Your task to perform on an android device: turn on airplane mode Image 0: 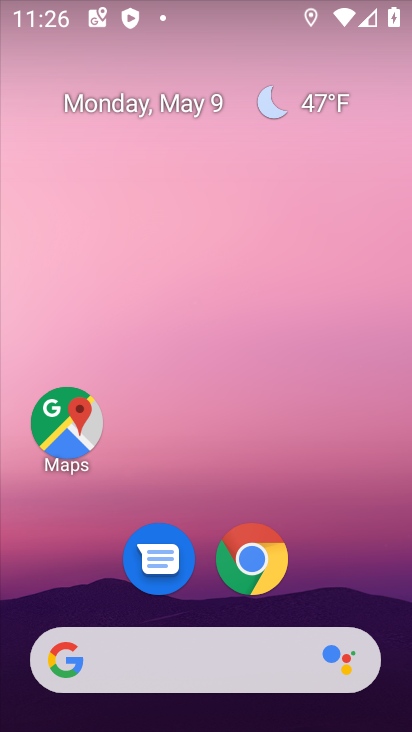
Step 0: drag from (323, 10) to (308, 502)
Your task to perform on an android device: turn on airplane mode Image 1: 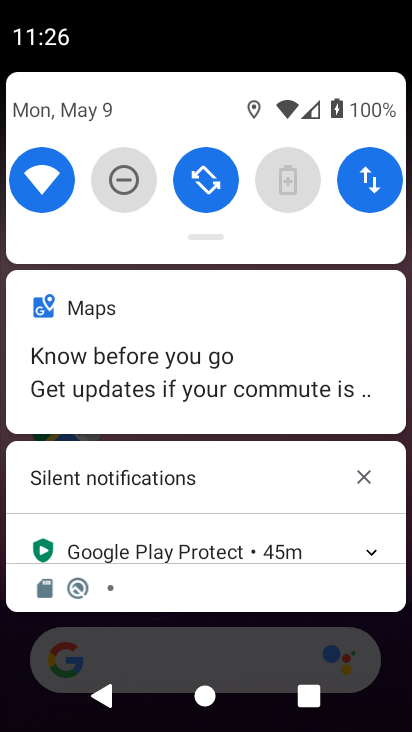
Step 1: drag from (228, 216) to (228, 615)
Your task to perform on an android device: turn on airplane mode Image 2: 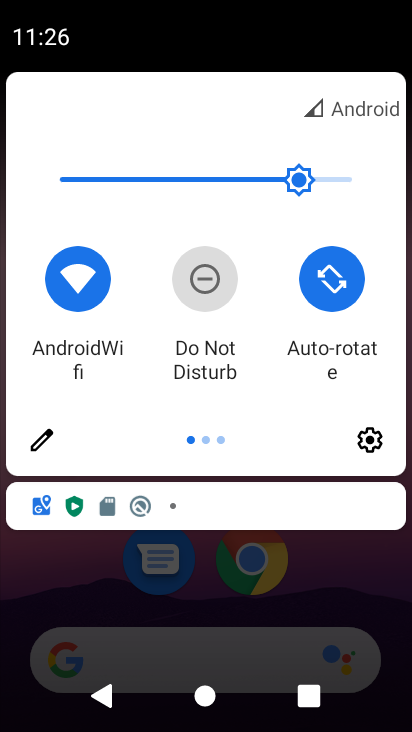
Step 2: drag from (370, 283) to (6, 344)
Your task to perform on an android device: turn on airplane mode Image 3: 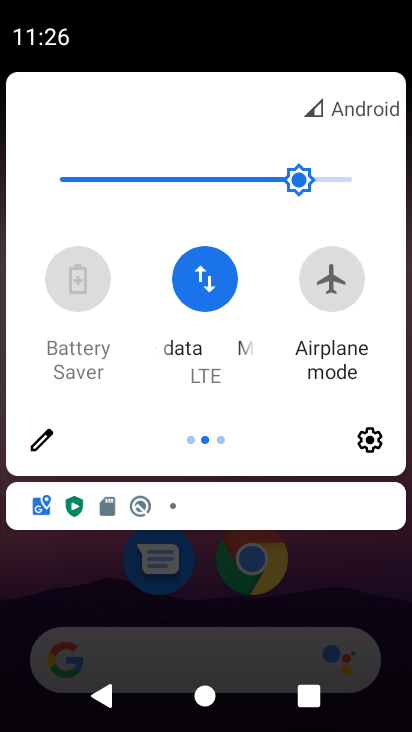
Step 3: click (311, 284)
Your task to perform on an android device: turn on airplane mode Image 4: 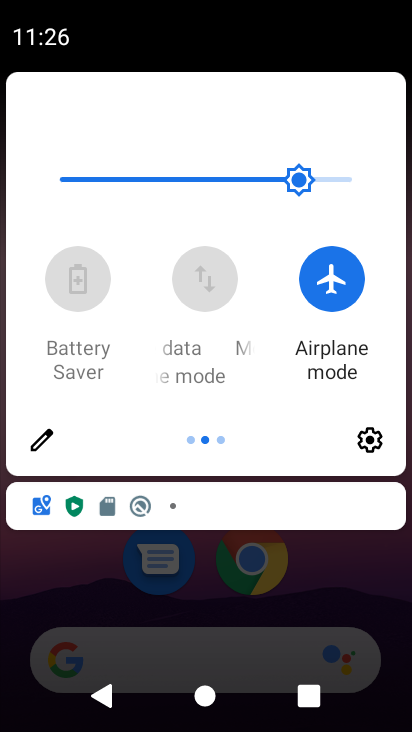
Step 4: task complete